Your task to perform on an android device: find photos in the google photos app Image 0: 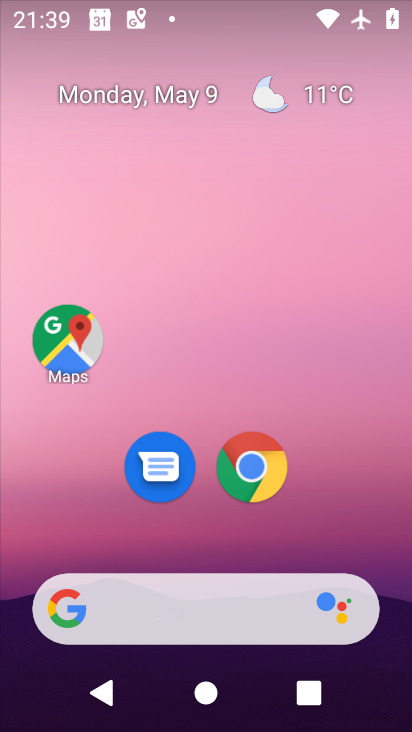
Step 0: drag from (297, 532) to (324, 225)
Your task to perform on an android device: find photos in the google photos app Image 1: 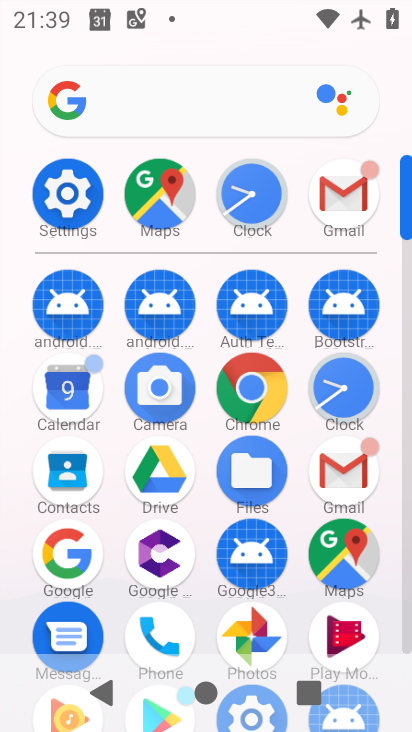
Step 1: click (252, 640)
Your task to perform on an android device: find photos in the google photos app Image 2: 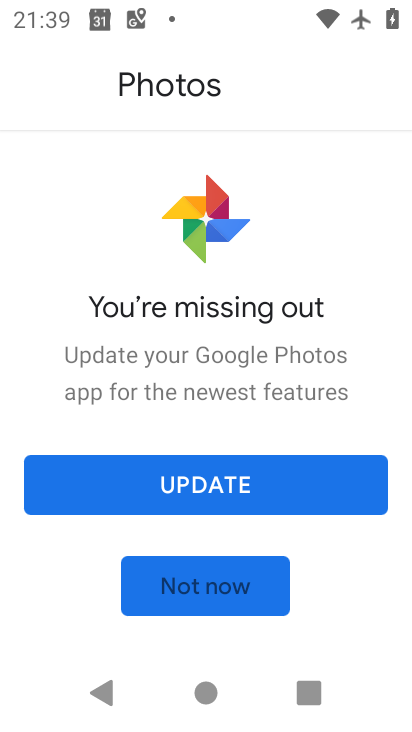
Step 2: click (276, 473)
Your task to perform on an android device: find photos in the google photos app Image 3: 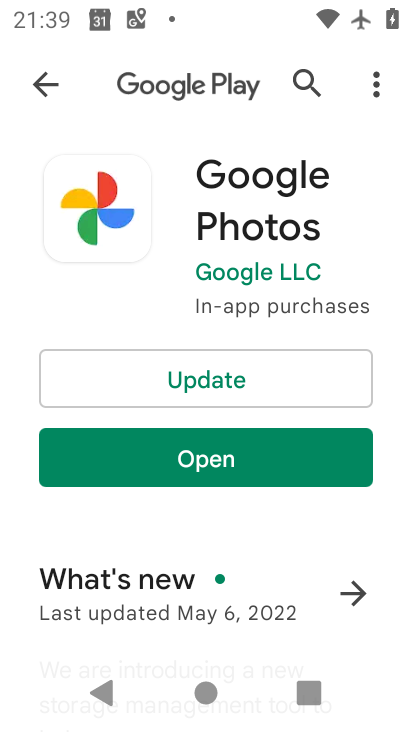
Step 3: press back button
Your task to perform on an android device: find photos in the google photos app Image 4: 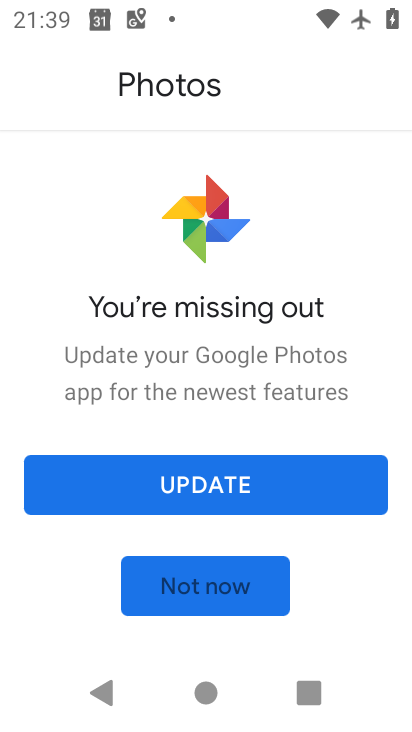
Step 4: click (214, 599)
Your task to perform on an android device: find photos in the google photos app Image 5: 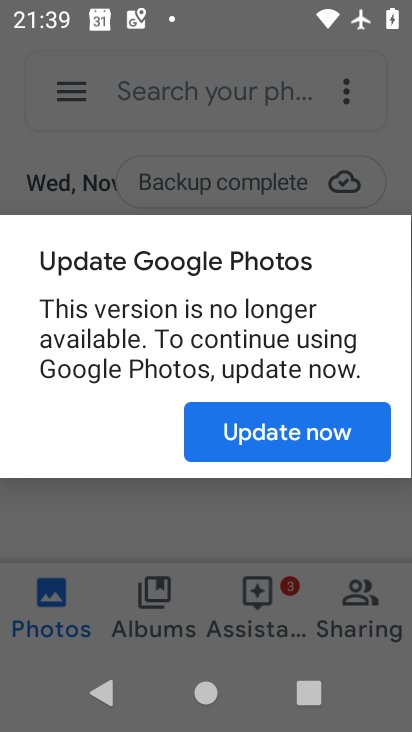
Step 5: click (298, 422)
Your task to perform on an android device: find photos in the google photos app Image 6: 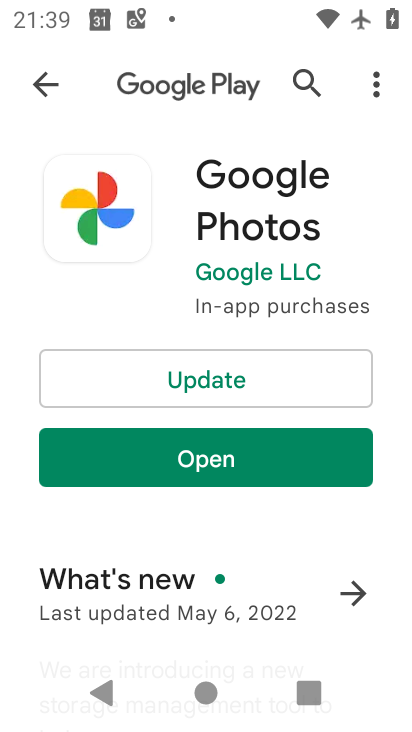
Step 6: press back button
Your task to perform on an android device: find photos in the google photos app Image 7: 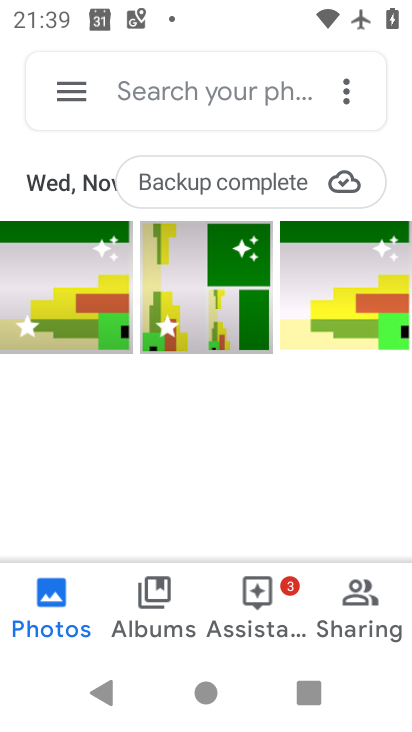
Step 7: click (97, 263)
Your task to perform on an android device: find photos in the google photos app Image 8: 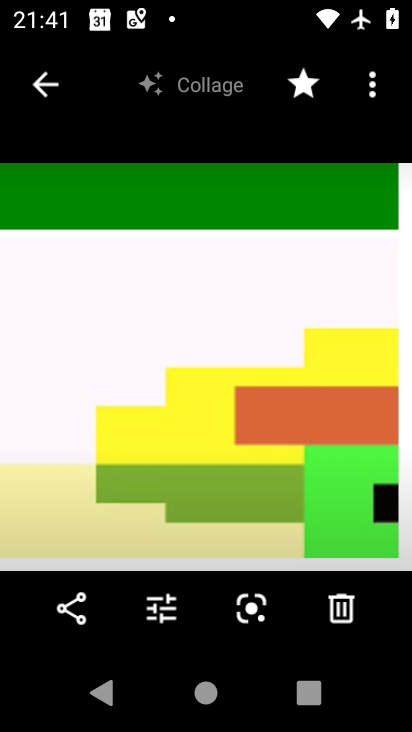
Step 8: task complete